Your task to perform on an android device: Open settings Image 0: 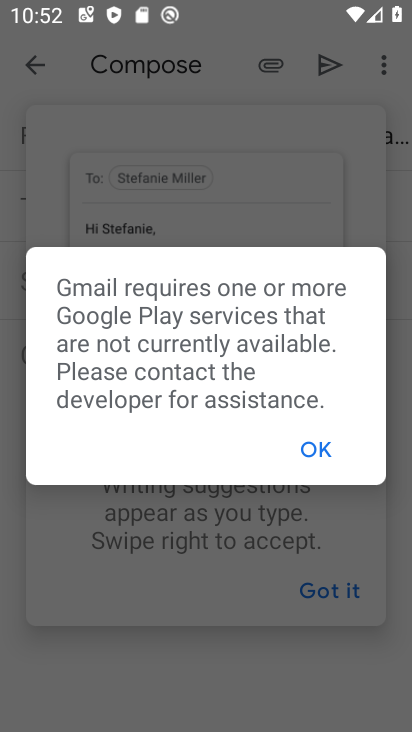
Step 0: press home button
Your task to perform on an android device: Open settings Image 1: 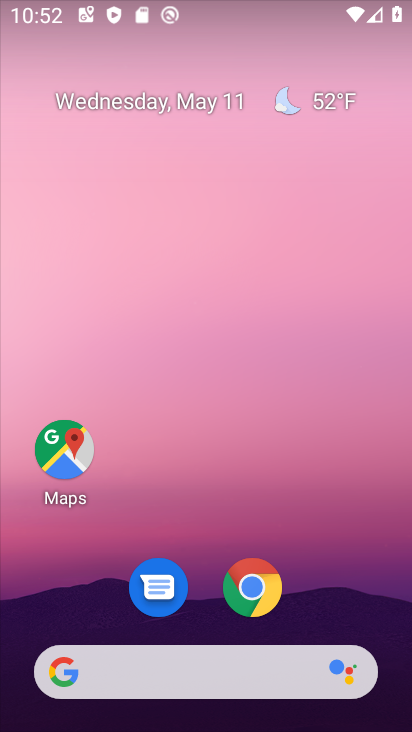
Step 1: drag from (244, 690) to (326, 190)
Your task to perform on an android device: Open settings Image 2: 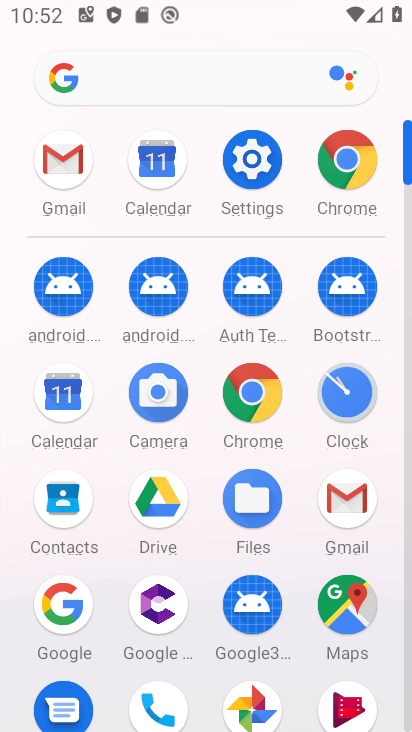
Step 2: click (259, 189)
Your task to perform on an android device: Open settings Image 3: 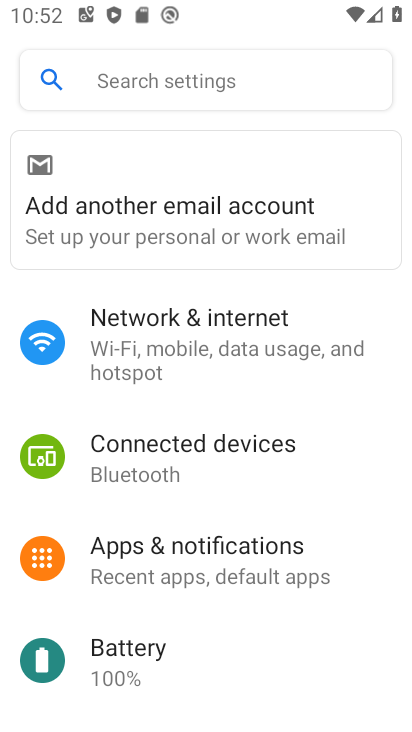
Step 3: task complete